Your task to perform on an android device: open chrome and create a bookmark for the current page Image 0: 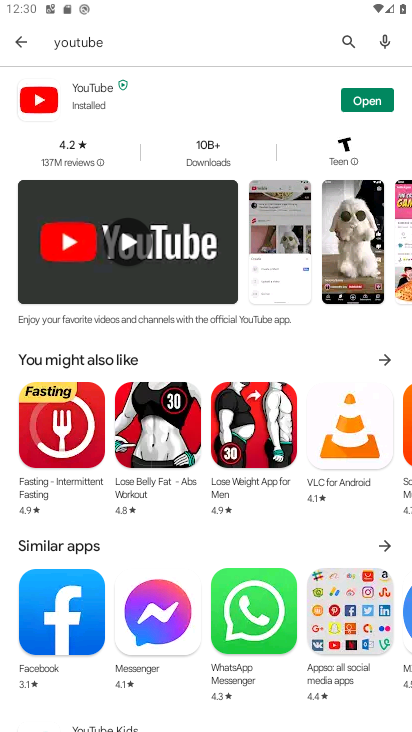
Step 0: press home button
Your task to perform on an android device: open chrome and create a bookmark for the current page Image 1: 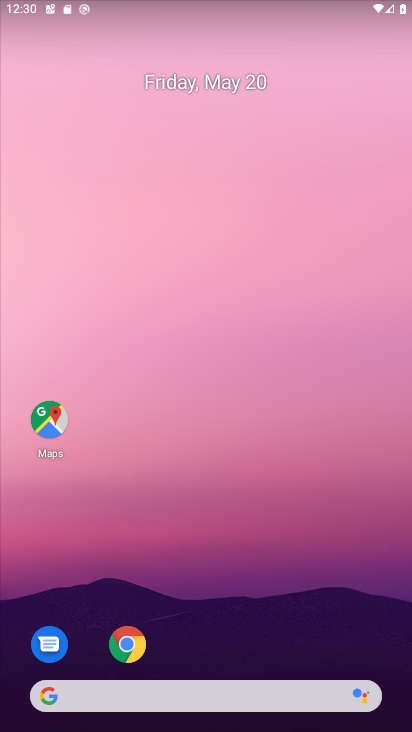
Step 1: click (151, 645)
Your task to perform on an android device: open chrome and create a bookmark for the current page Image 2: 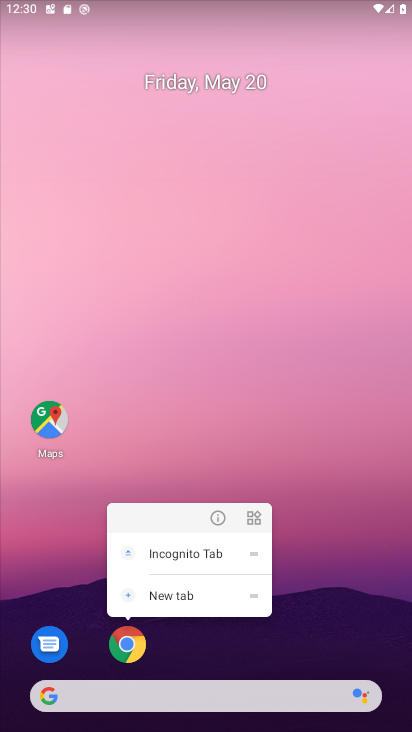
Step 2: click (114, 647)
Your task to perform on an android device: open chrome and create a bookmark for the current page Image 3: 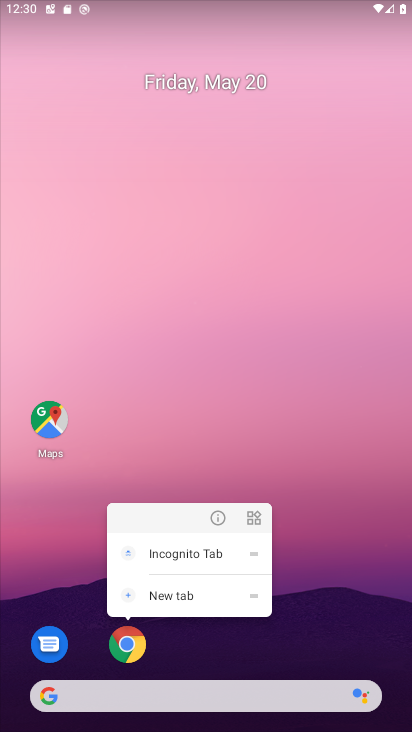
Step 3: click (136, 652)
Your task to perform on an android device: open chrome and create a bookmark for the current page Image 4: 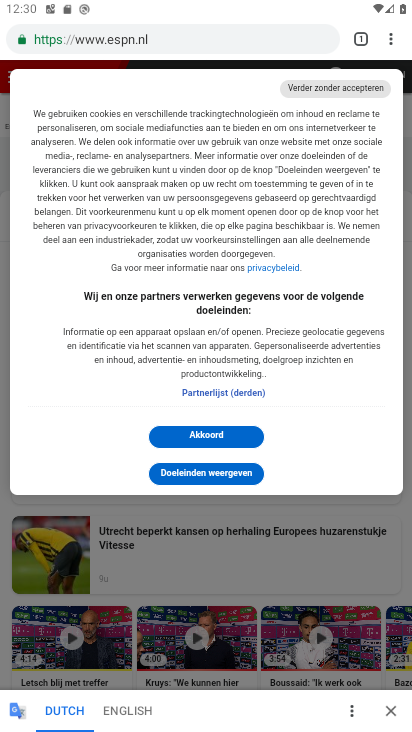
Step 4: click (391, 37)
Your task to perform on an android device: open chrome and create a bookmark for the current page Image 5: 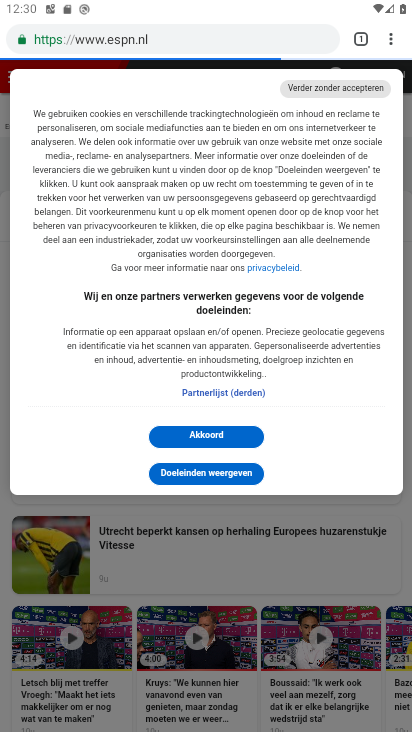
Step 5: click (391, 37)
Your task to perform on an android device: open chrome and create a bookmark for the current page Image 6: 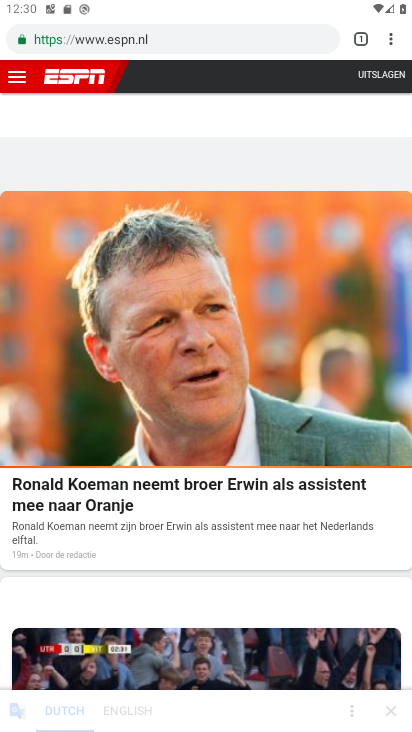
Step 6: click (391, 37)
Your task to perform on an android device: open chrome and create a bookmark for the current page Image 7: 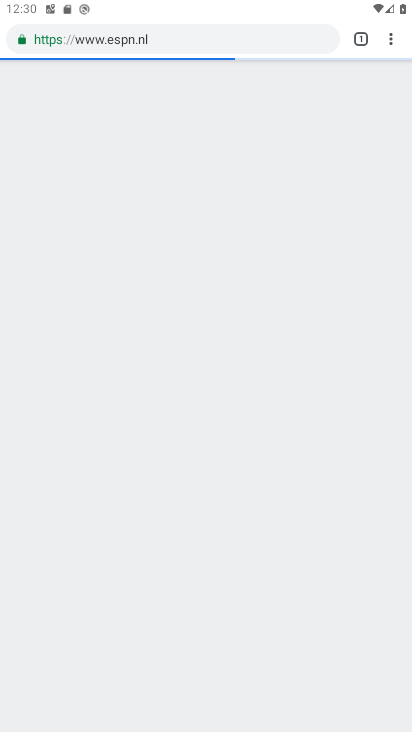
Step 7: click (391, 37)
Your task to perform on an android device: open chrome and create a bookmark for the current page Image 8: 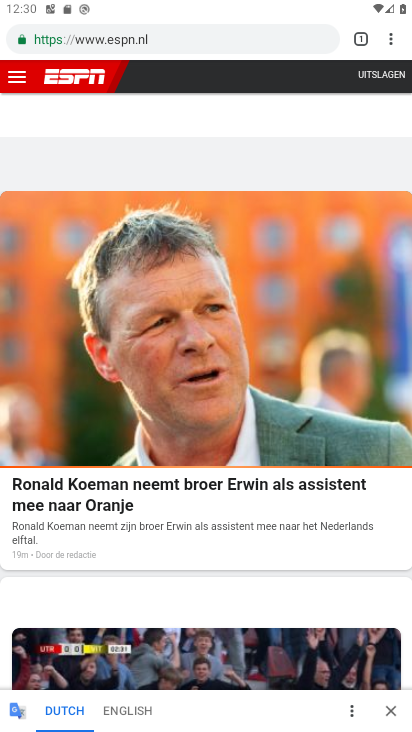
Step 8: click (391, 37)
Your task to perform on an android device: open chrome and create a bookmark for the current page Image 9: 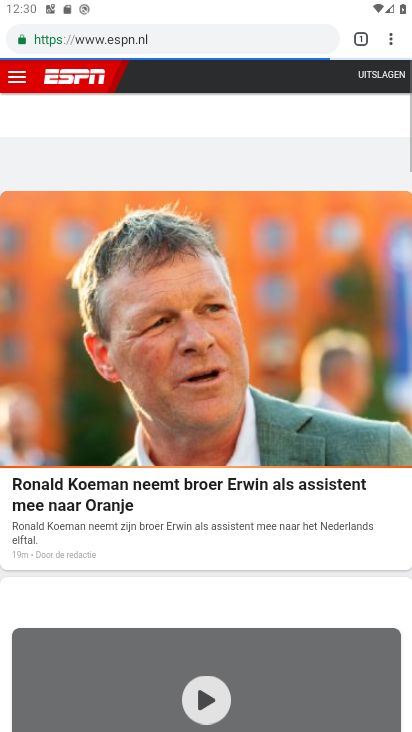
Step 9: click (389, 30)
Your task to perform on an android device: open chrome and create a bookmark for the current page Image 10: 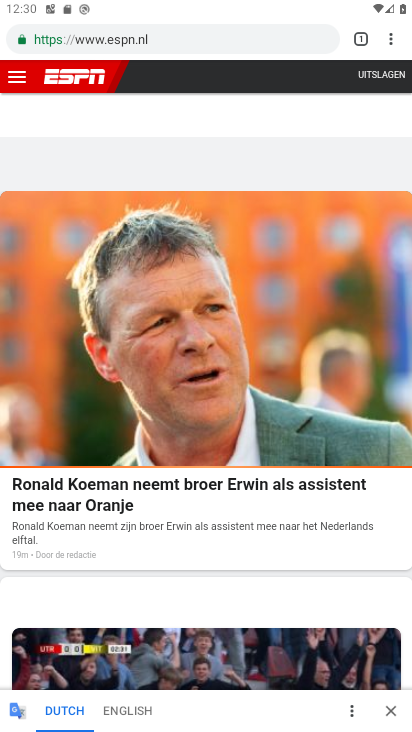
Step 10: click (397, 38)
Your task to perform on an android device: open chrome and create a bookmark for the current page Image 11: 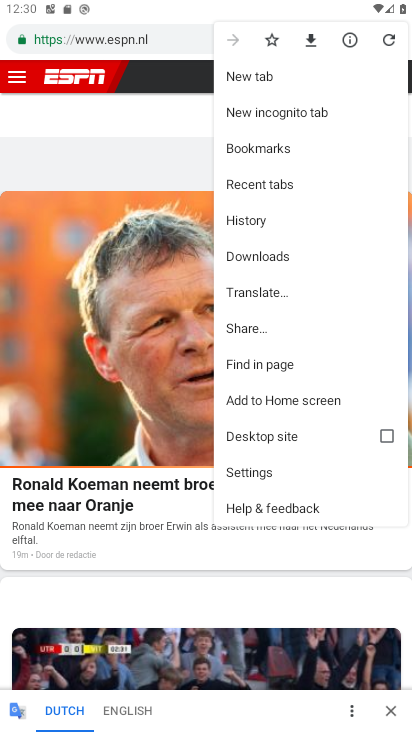
Step 11: click (272, 46)
Your task to perform on an android device: open chrome and create a bookmark for the current page Image 12: 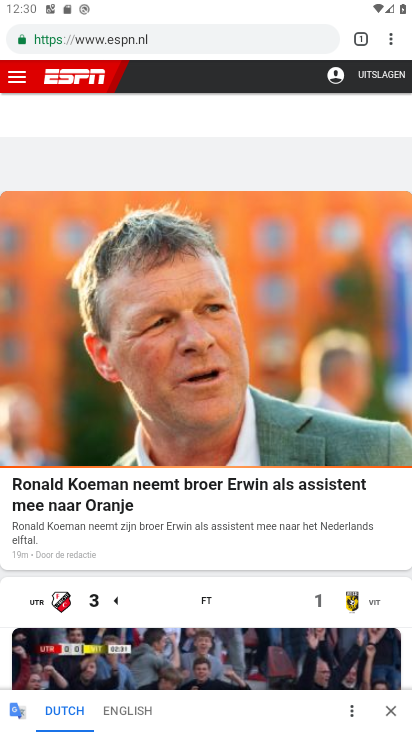
Step 12: task complete